Your task to perform on an android device: Go to Android settings Image 0: 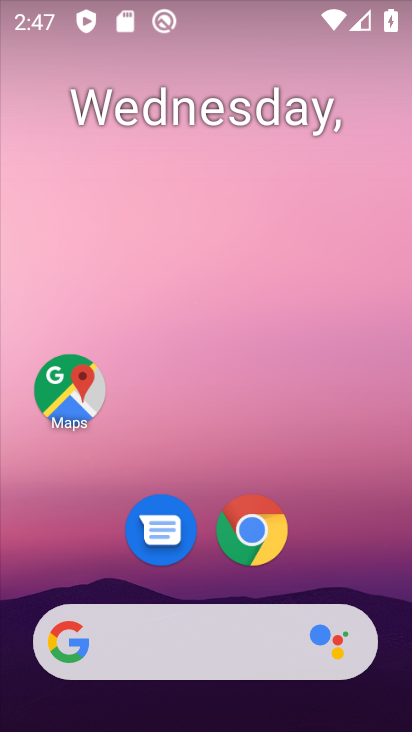
Step 0: drag from (265, 325) to (408, 491)
Your task to perform on an android device: Go to Android settings Image 1: 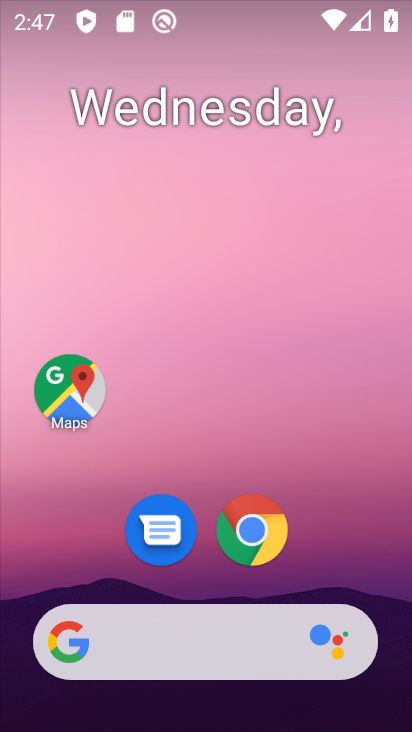
Step 1: press back button
Your task to perform on an android device: Go to Android settings Image 2: 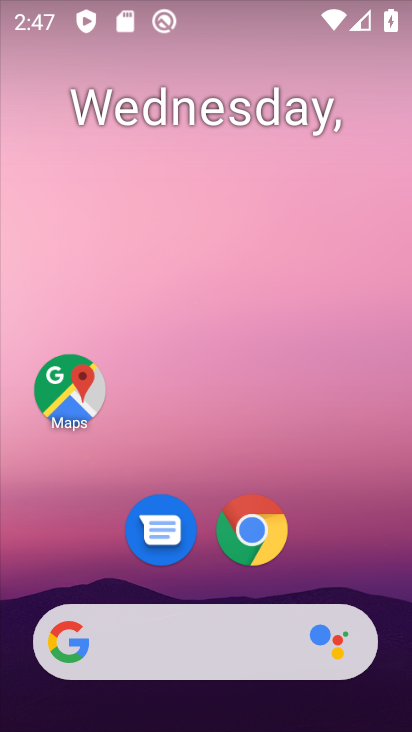
Step 2: press back button
Your task to perform on an android device: Go to Android settings Image 3: 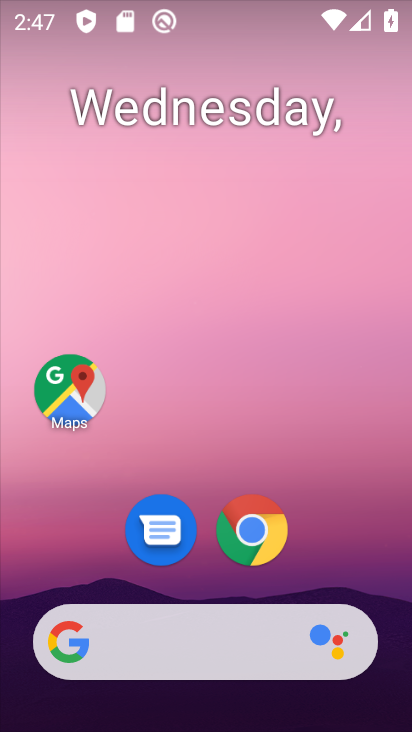
Step 3: press back button
Your task to perform on an android device: Go to Android settings Image 4: 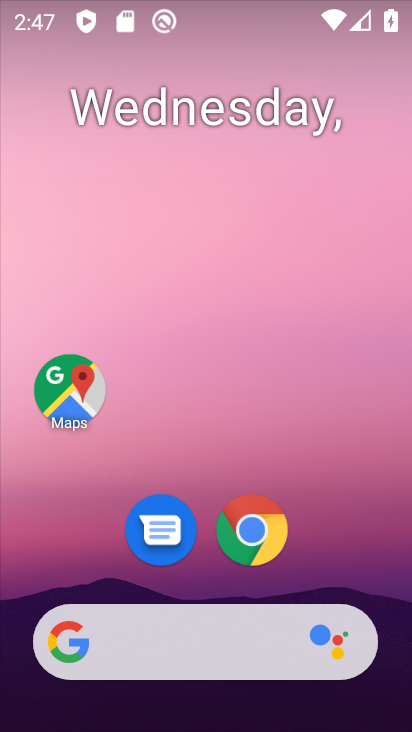
Step 4: drag from (218, 637) to (64, 7)
Your task to perform on an android device: Go to Android settings Image 5: 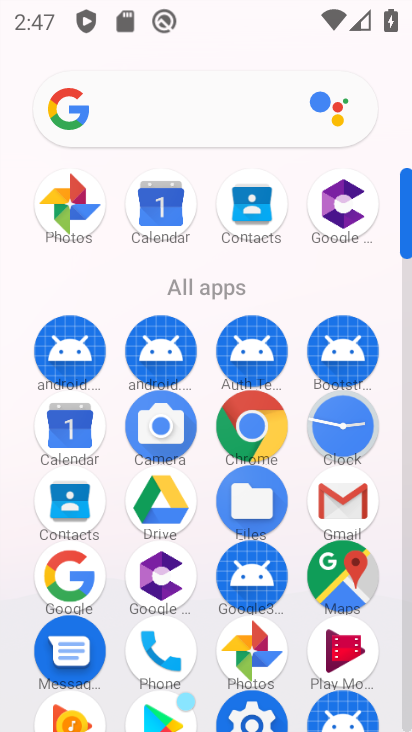
Step 5: drag from (259, 553) to (197, 63)
Your task to perform on an android device: Go to Android settings Image 6: 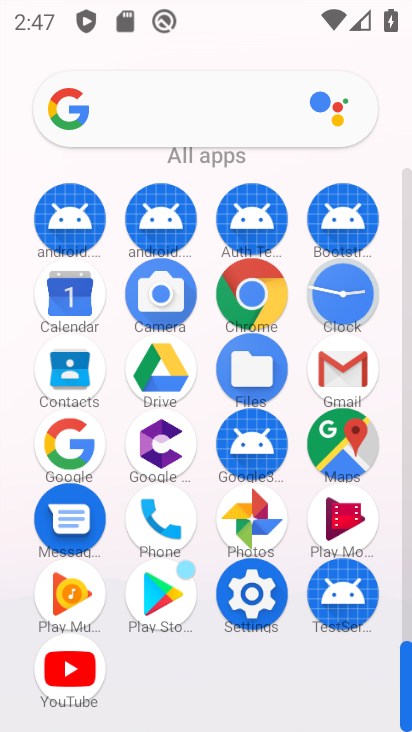
Step 6: drag from (237, 366) to (210, 109)
Your task to perform on an android device: Go to Android settings Image 7: 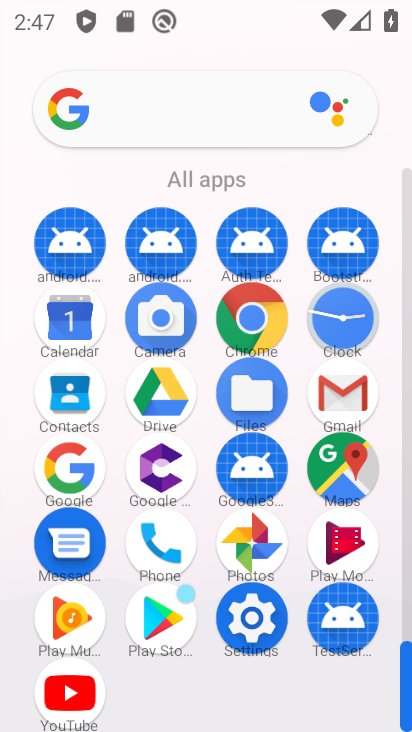
Step 7: click (253, 625)
Your task to perform on an android device: Go to Android settings Image 8: 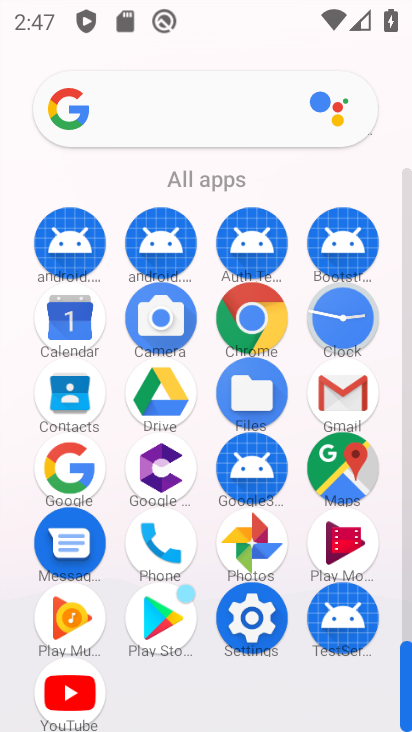
Step 8: click (261, 617)
Your task to perform on an android device: Go to Android settings Image 9: 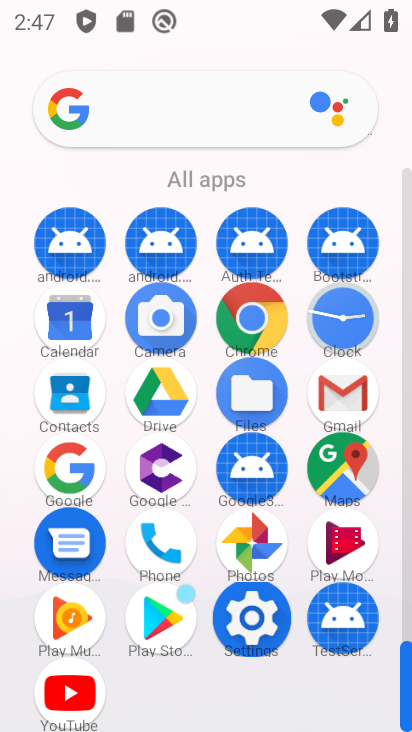
Step 9: click (250, 625)
Your task to perform on an android device: Go to Android settings Image 10: 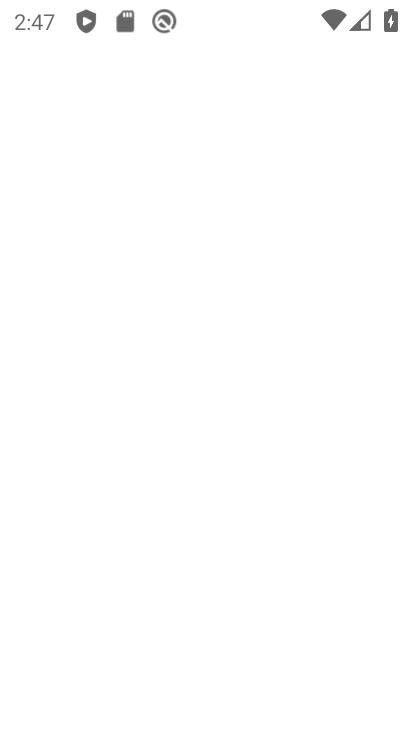
Step 10: click (251, 617)
Your task to perform on an android device: Go to Android settings Image 11: 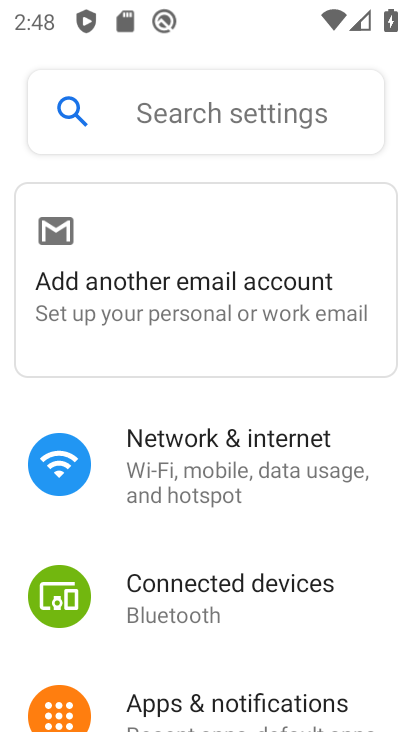
Step 11: click (181, 458)
Your task to perform on an android device: Go to Android settings Image 12: 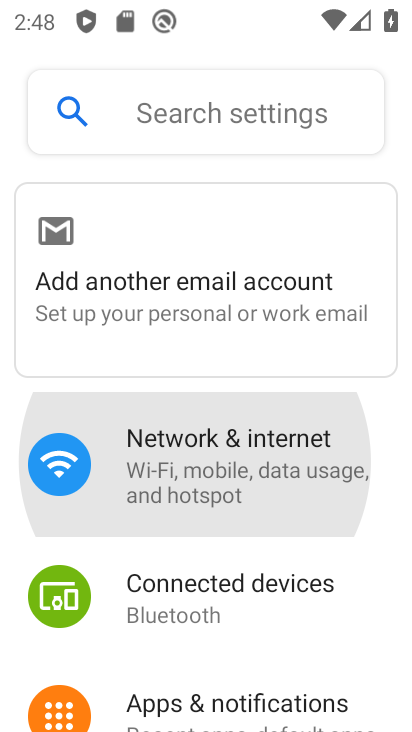
Step 12: click (181, 458)
Your task to perform on an android device: Go to Android settings Image 13: 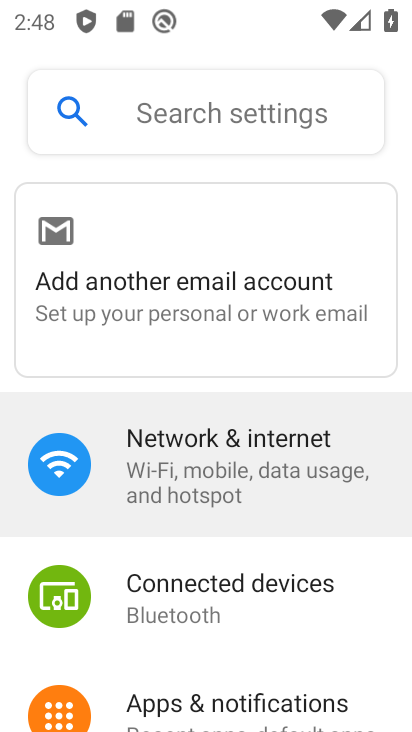
Step 13: click (181, 458)
Your task to perform on an android device: Go to Android settings Image 14: 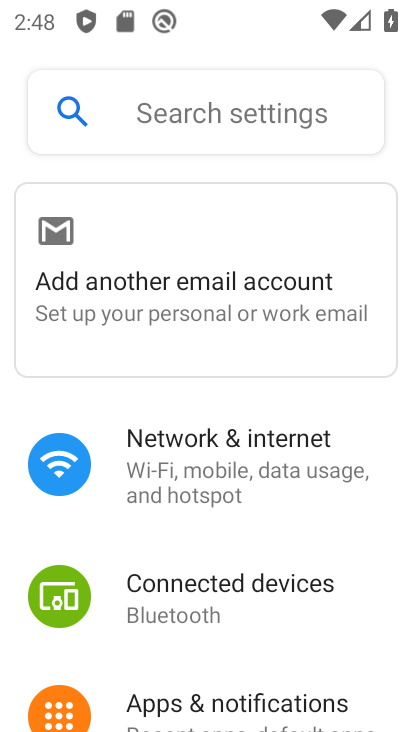
Step 14: click (182, 467)
Your task to perform on an android device: Go to Android settings Image 15: 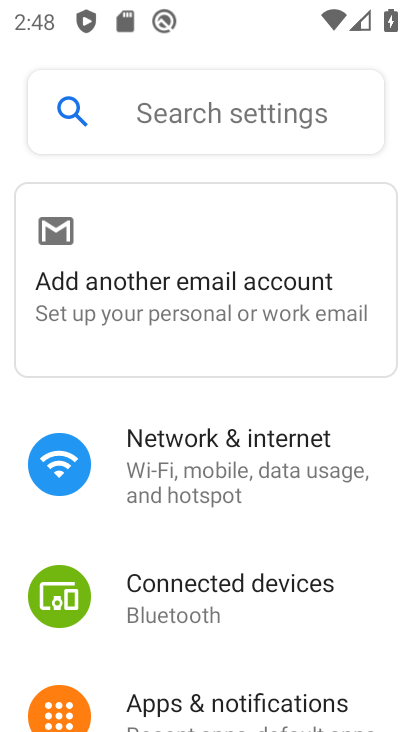
Step 15: click (182, 467)
Your task to perform on an android device: Go to Android settings Image 16: 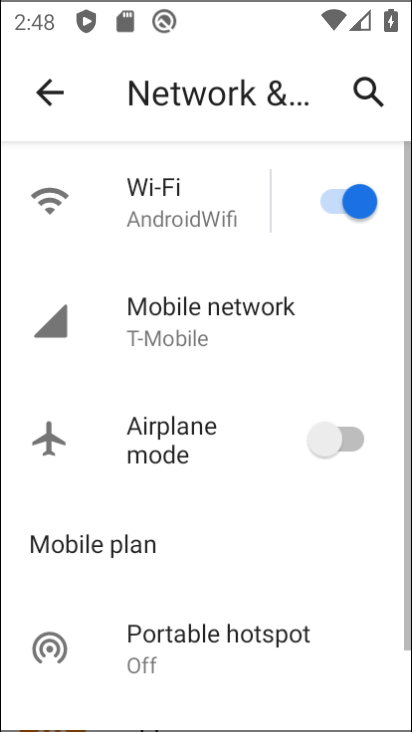
Step 16: click (182, 468)
Your task to perform on an android device: Go to Android settings Image 17: 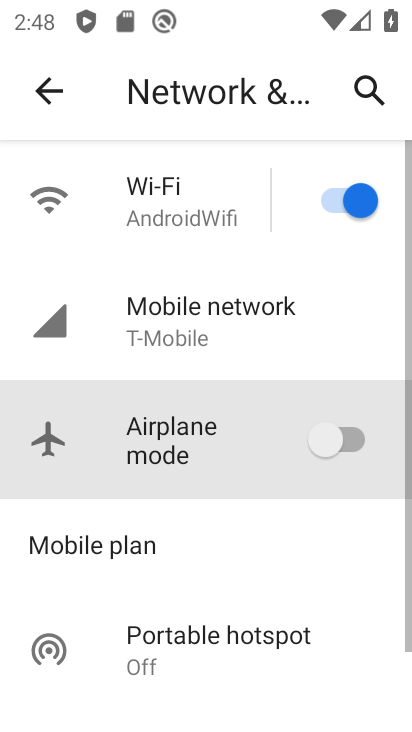
Step 17: click (183, 473)
Your task to perform on an android device: Go to Android settings Image 18: 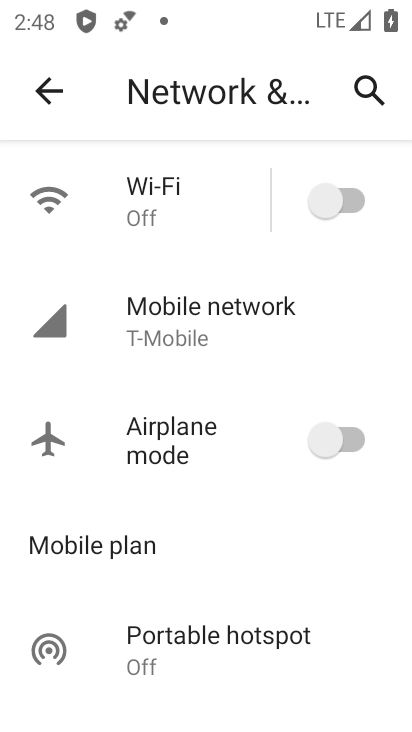
Step 18: click (133, 70)
Your task to perform on an android device: Go to Android settings Image 19: 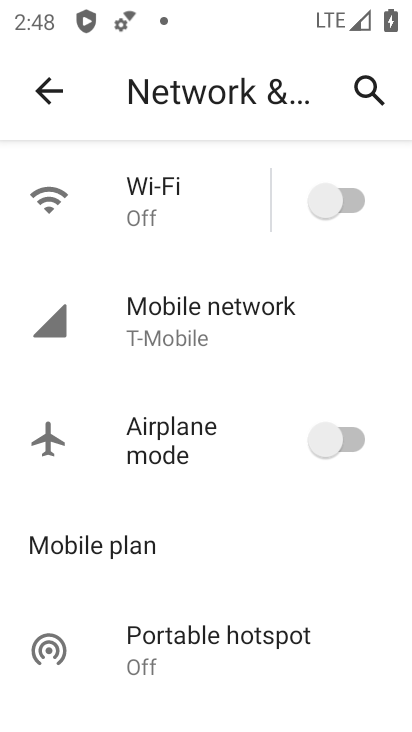
Step 19: drag from (211, 196) to (166, 95)
Your task to perform on an android device: Go to Android settings Image 20: 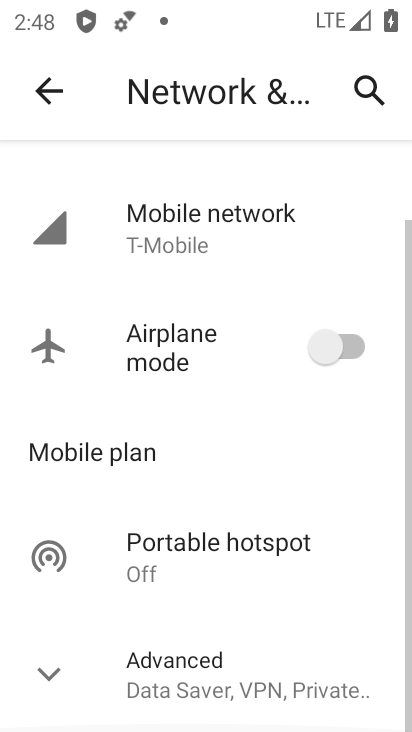
Step 20: click (34, 87)
Your task to perform on an android device: Go to Android settings Image 21: 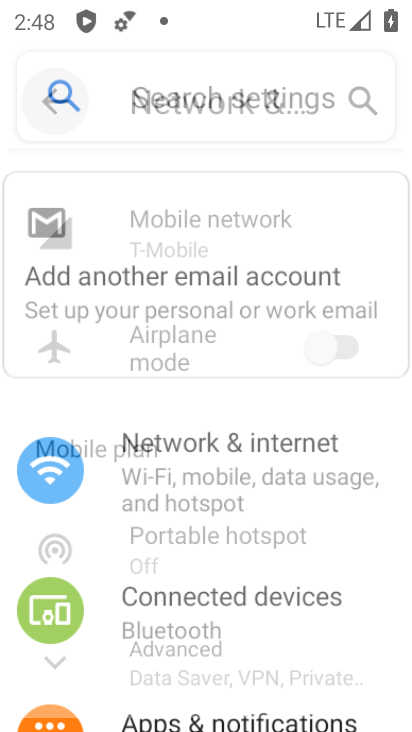
Step 21: drag from (194, 528) to (150, 147)
Your task to perform on an android device: Go to Android settings Image 22: 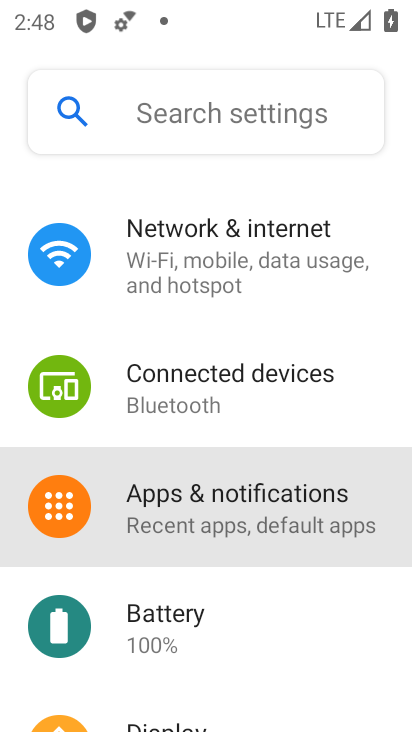
Step 22: drag from (244, 591) to (214, 108)
Your task to perform on an android device: Go to Android settings Image 23: 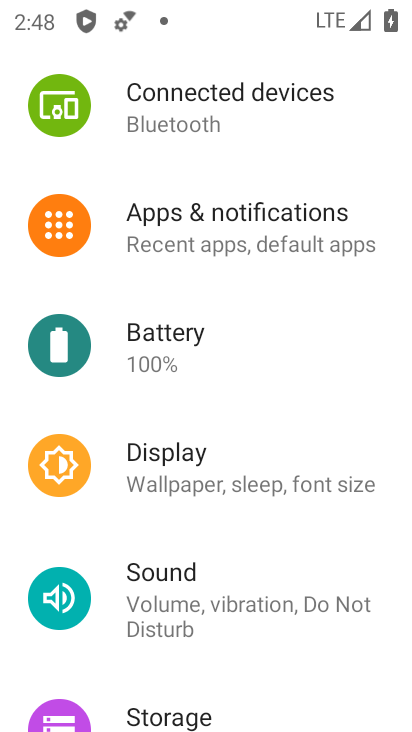
Step 23: drag from (223, 496) to (250, 43)
Your task to perform on an android device: Go to Android settings Image 24: 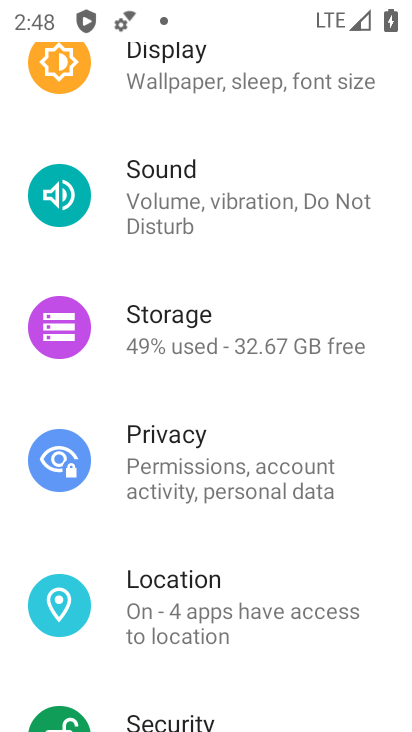
Step 24: drag from (240, 522) to (115, 112)
Your task to perform on an android device: Go to Android settings Image 25: 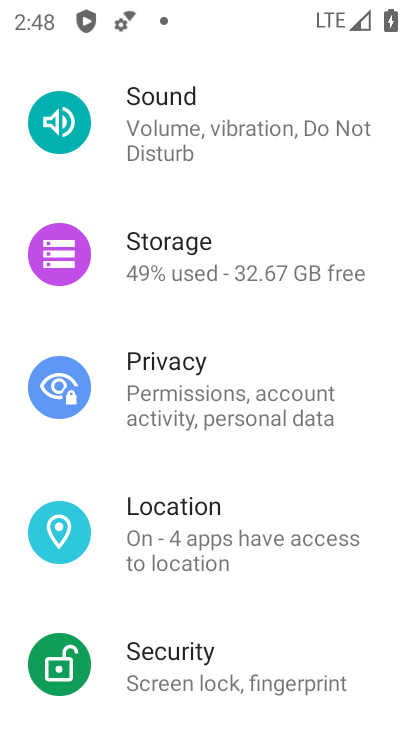
Step 25: click (36, 87)
Your task to perform on an android device: Go to Android settings Image 26: 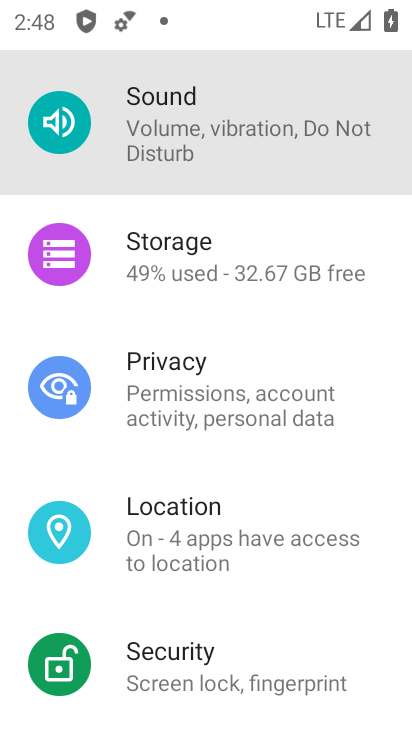
Step 26: click (37, 84)
Your task to perform on an android device: Go to Android settings Image 27: 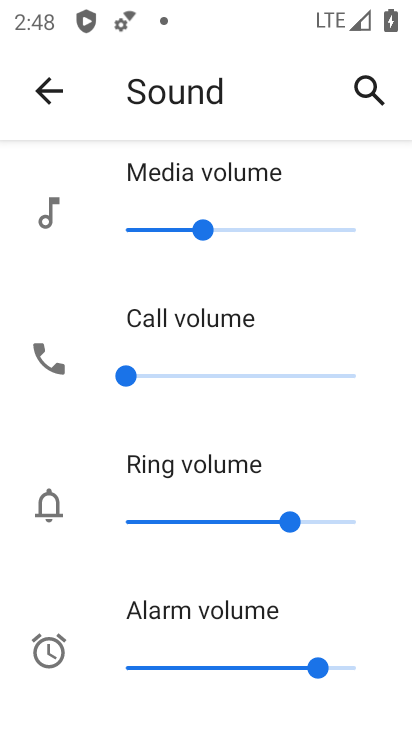
Step 27: click (44, 99)
Your task to perform on an android device: Go to Android settings Image 28: 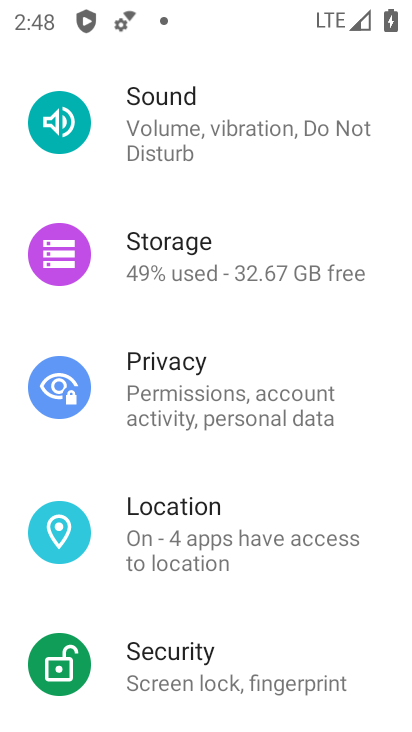
Step 28: drag from (220, 576) to (171, 32)
Your task to perform on an android device: Go to Android settings Image 29: 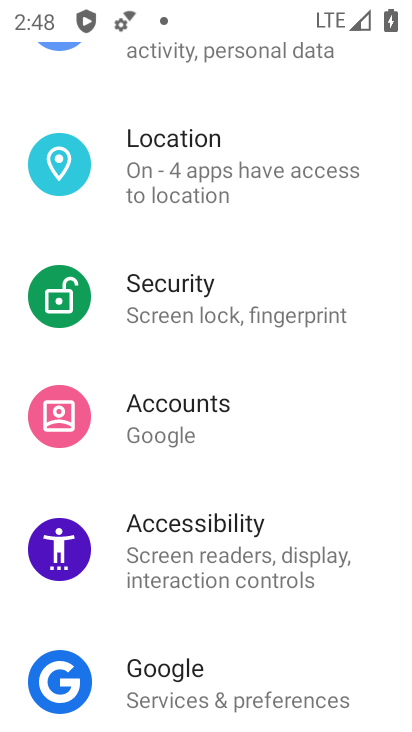
Step 29: drag from (256, 524) to (251, 66)
Your task to perform on an android device: Go to Android settings Image 30: 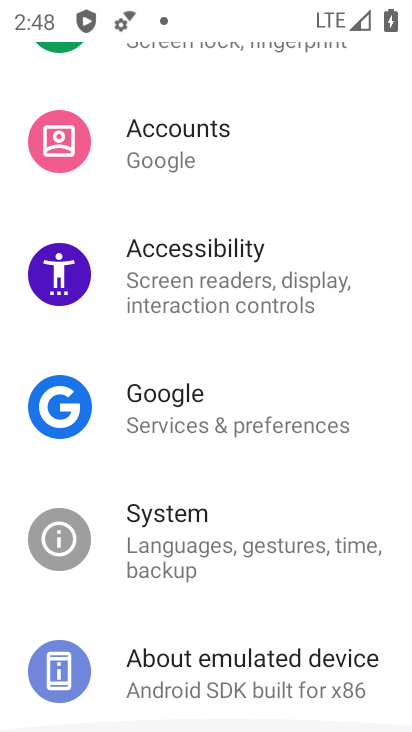
Step 30: drag from (247, 528) to (209, 140)
Your task to perform on an android device: Go to Android settings Image 31: 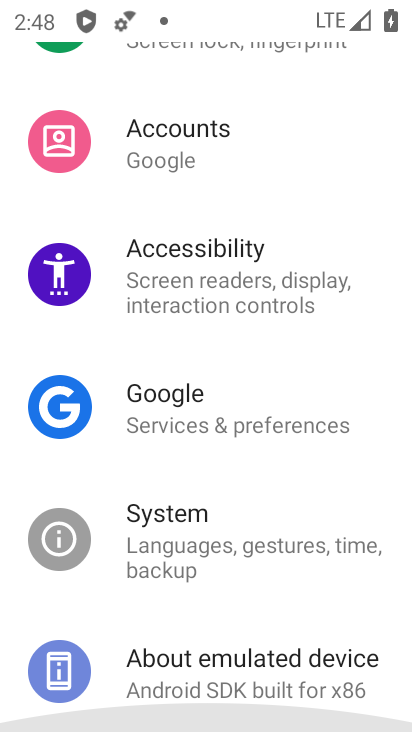
Step 31: drag from (185, 176) to (174, 22)
Your task to perform on an android device: Go to Android settings Image 32: 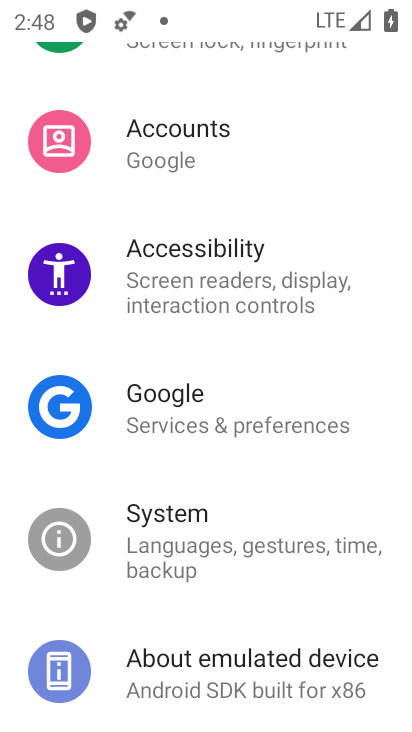
Step 32: drag from (195, 379) to (179, 274)
Your task to perform on an android device: Go to Android settings Image 33: 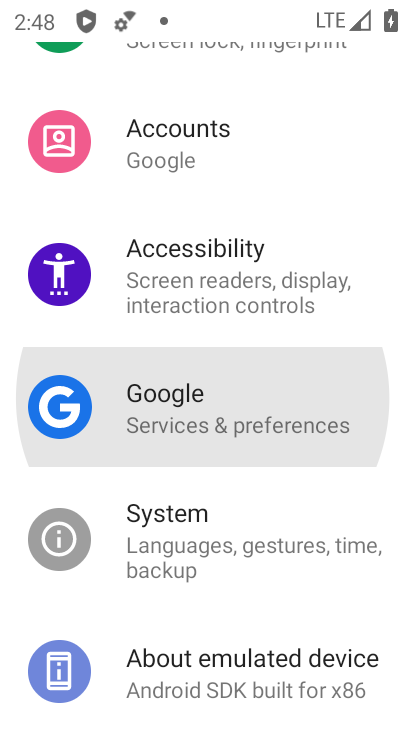
Step 33: drag from (186, 500) to (203, 114)
Your task to perform on an android device: Go to Android settings Image 34: 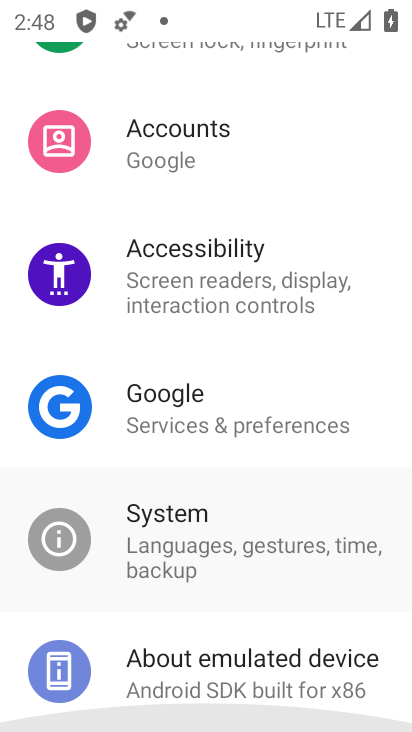
Step 34: drag from (192, 567) to (191, 245)
Your task to perform on an android device: Go to Android settings Image 35: 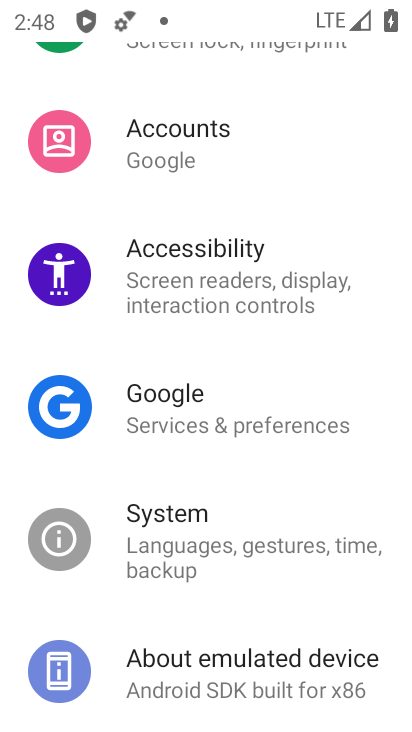
Step 35: click (235, 672)
Your task to perform on an android device: Go to Android settings Image 36: 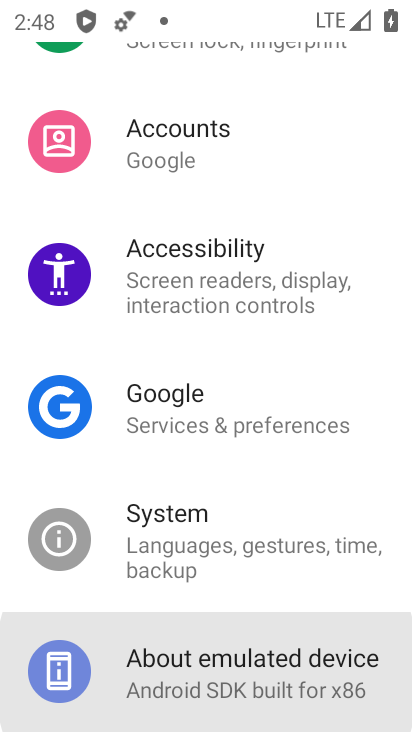
Step 36: click (235, 672)
Your task to perform on an android device: Go to Android settings Image 37: 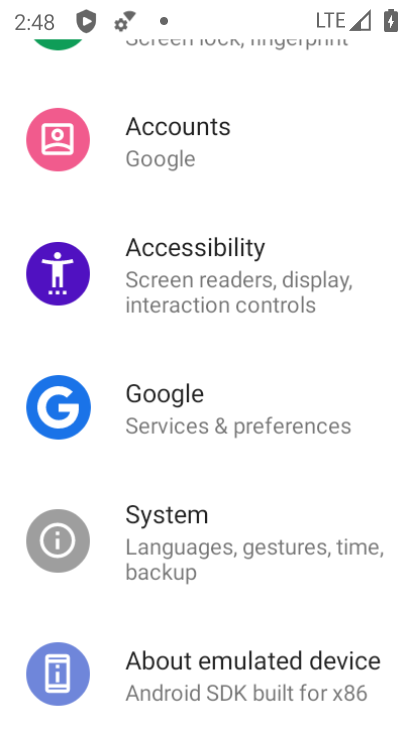
Step 37: click (235, 672)
Your task to perform on an android device: Go to Android settings Image 38: 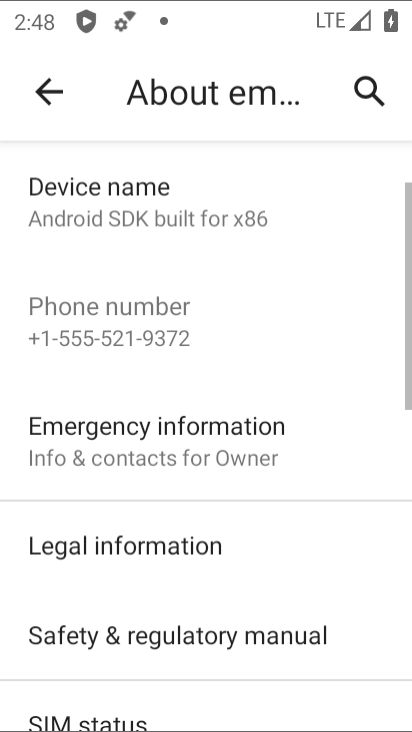
Step 38: click (235, 672)
Your task to perform on an android device: Go to Android settings Image 39: 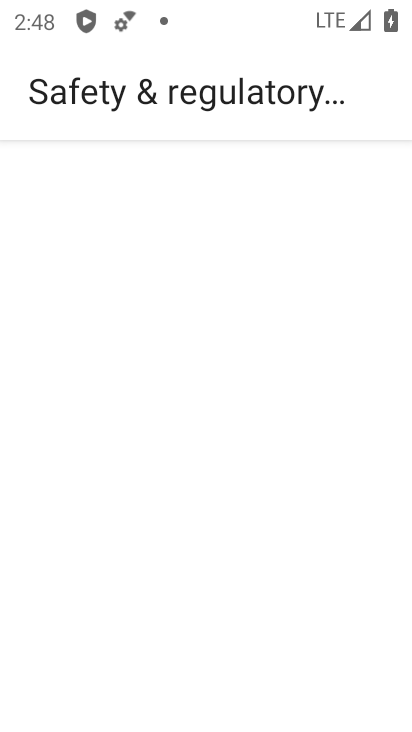
Step 39: task complete